Your task to perform on an android device: toggle location history Image 0: 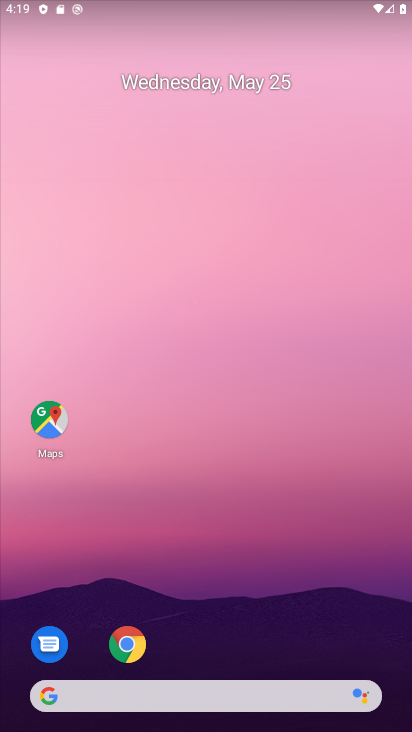
Step 0: drag from (267, 595) to (388, 20)
Your task to perform on an android device: toggle location history Image 1: 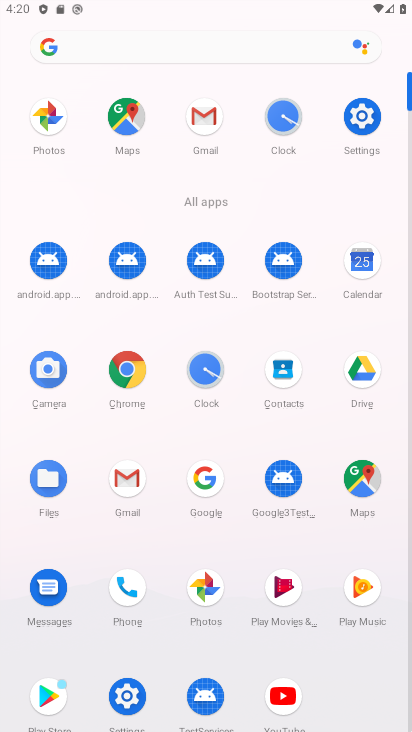
Step 1: click (367, 123)
Your task to perform on an android device: toggle location history Image 2: 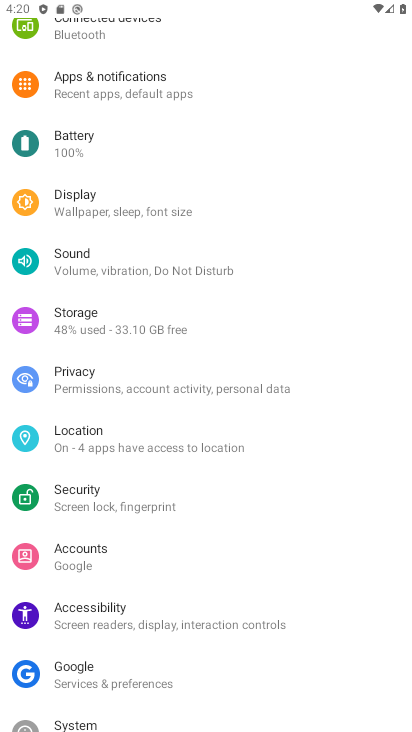
Step 2: click (83, 447)
Your task to perform on an android device: toggle location history Image 3: 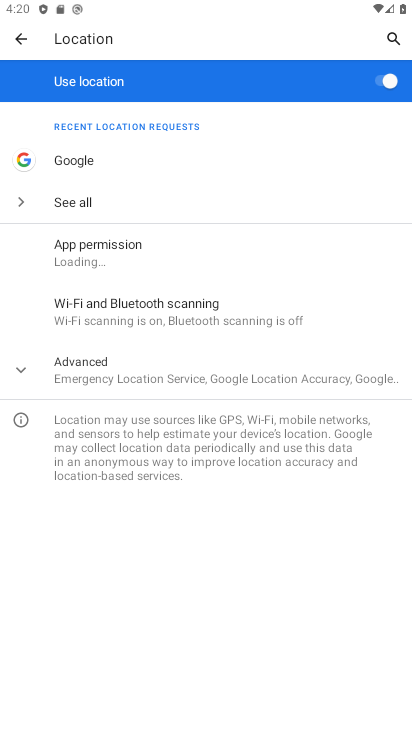
Step 3: click (85, 375)
Your task to perform on an android device: toggle location history Image 4: 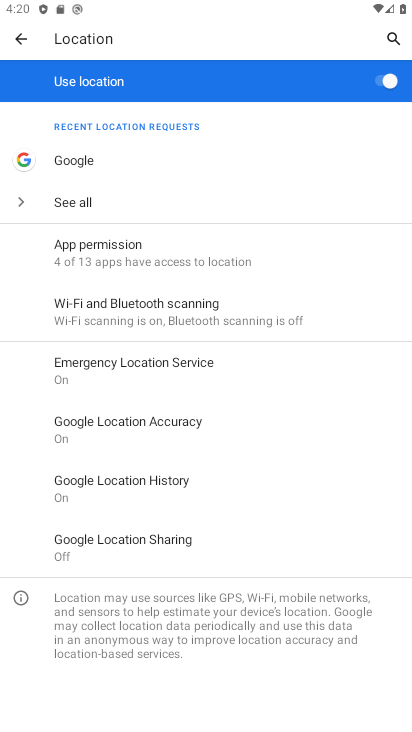
Step 4: click (119, 485)
Your task to perform on an android device: toggle location history Image 5: 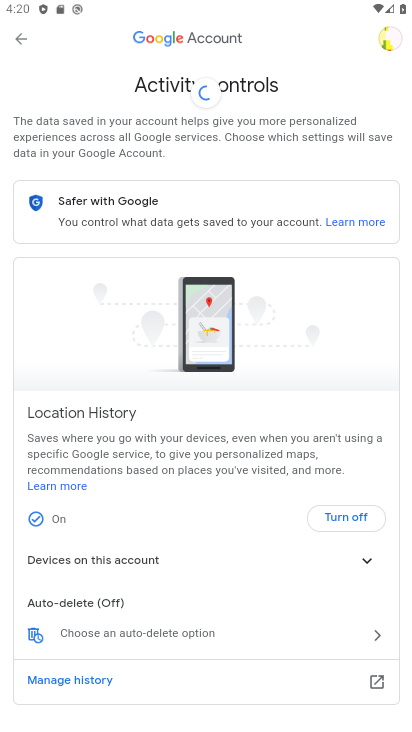
Step 5: click (337, 517)
Your task to perform on an android device: toggle location history Image 6: 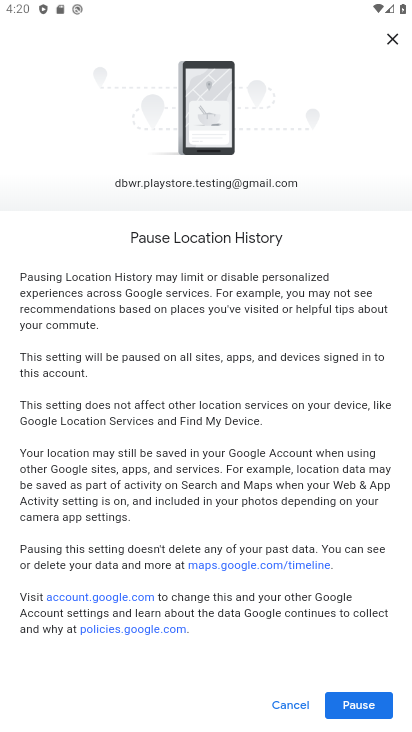
Step 6: click (359, 696)
Your task to perform on an android device: toggle location history Image 7: 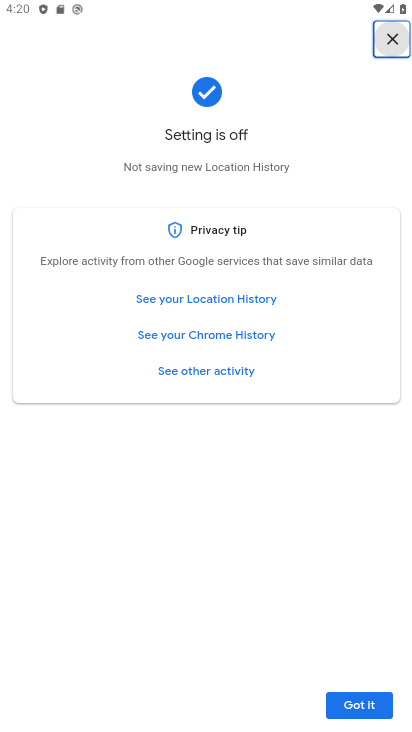
Step 7: click (357, 703)
Your task to perform on an android device: toggle location history Image 8: 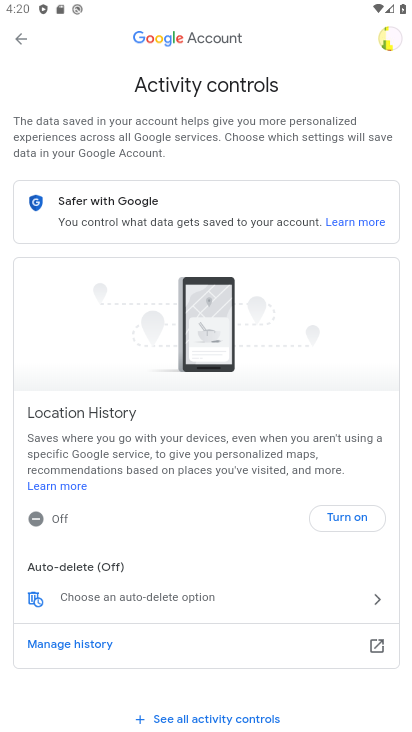
Step 8: task complete